Your task to perform on an android device: Search for seafood restaurants on Google Maps Image 0: 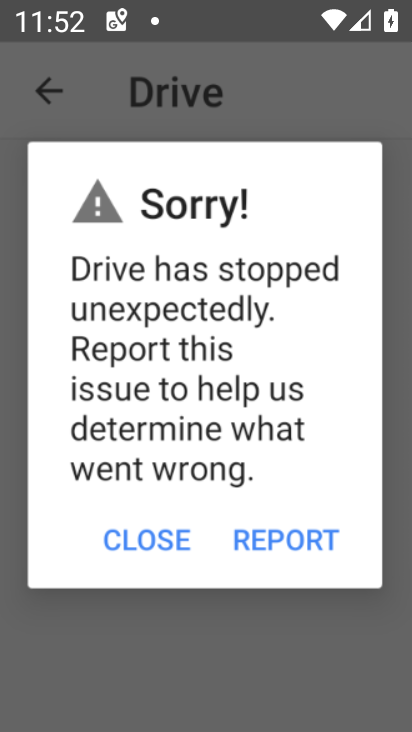
Step 0: click (261, 546)
Your task to perform on an android device: Search for seafood restaurants on Google Maps Image 1: 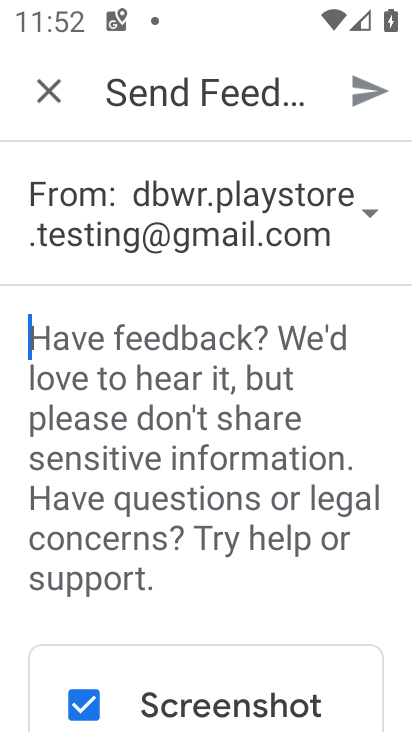
Step 1: press home button
Your task to perform on an android device: Search for seafood restaurants on Google Maps Image 2: 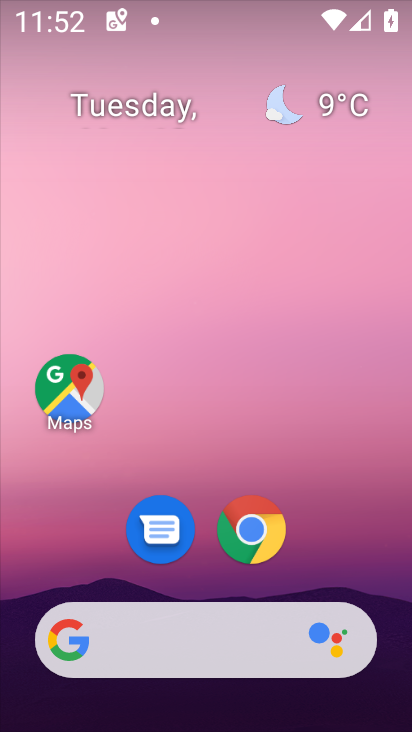
Step 2: click (61, 387)
Your task to perform on an android device: Search for seafood restaurants on Google Maps Image 3: 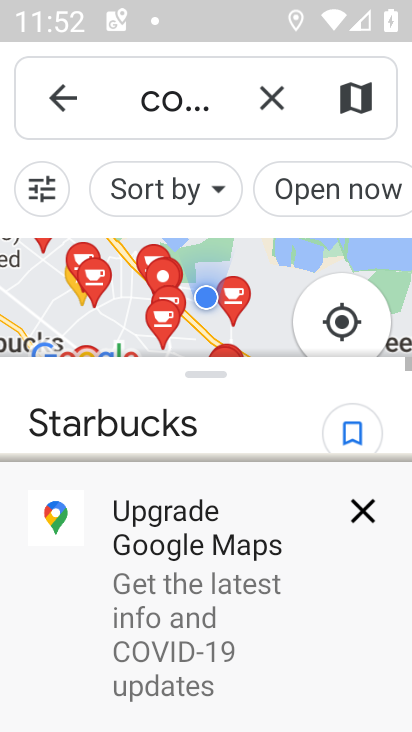
Step 3: click (268, 96)
Your task to perform on an android device: Search for seafood restaurants on Google Maps Image 4: 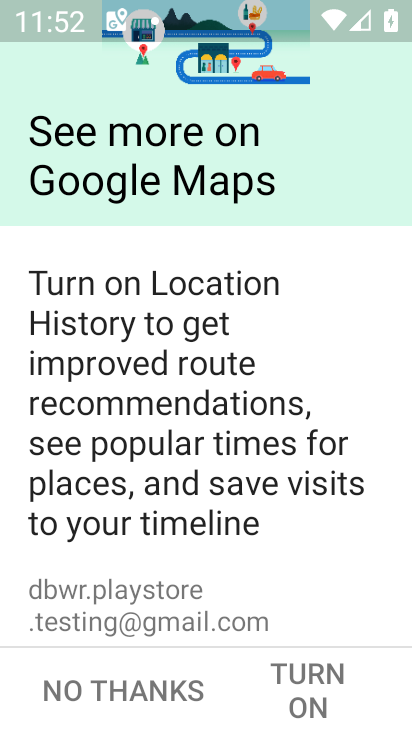
Step 4: press back button
Your task to perform on an android device: Search for seafood restaurants on Google Maps Image 5: 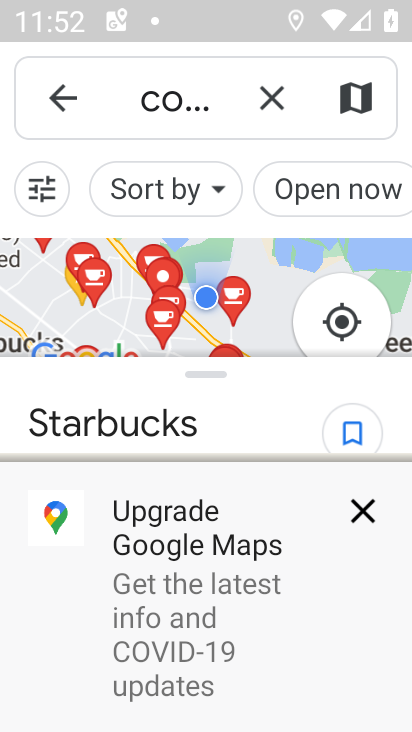
Step 5: click (265, 106)
Your task to perform on an android device: Search for seafood restaurants on Google Maps Image 6: 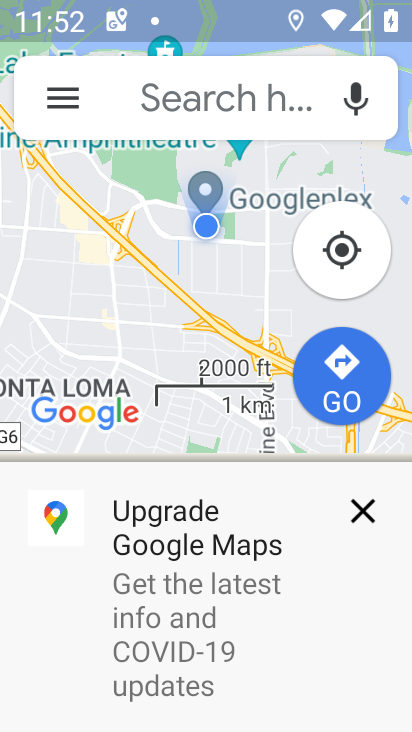
Step 6: click (241, 110)
Your task to perform on an android device: Search for seafood restaurants on Google Maps Image 7: 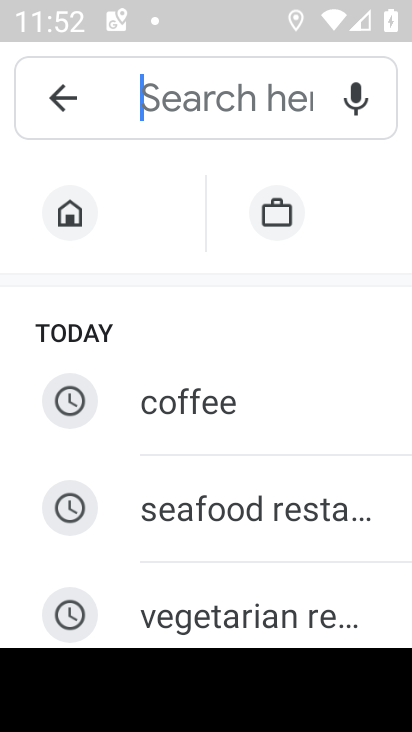
Step 7: click (243, 520)
Your task to perform on an android device: Search for seafood restaurants on Google Maps Image 8: 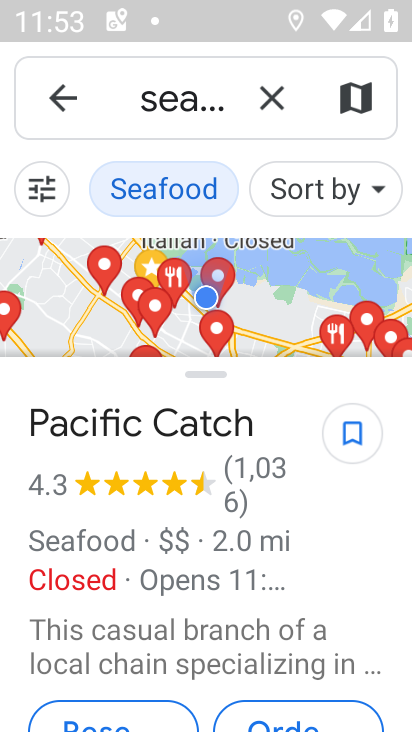
Step 8: task complete